Your task to perform on an android device: Go to battery settings Image 0: 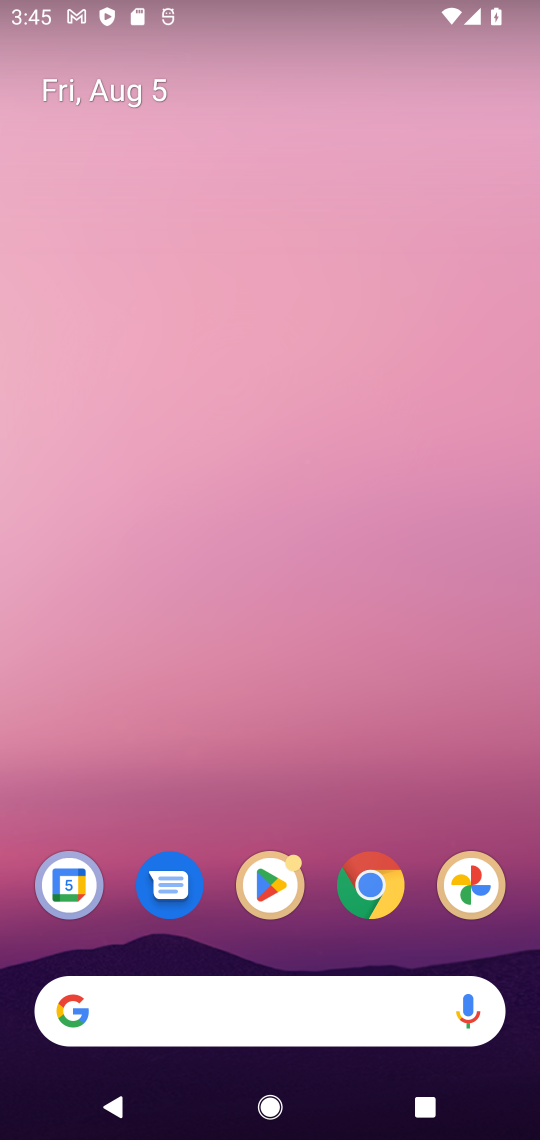
Step 0: drag from (329, 869) to (200, 106)
Your task to perform on an android device: Go to battery settings Image 1: 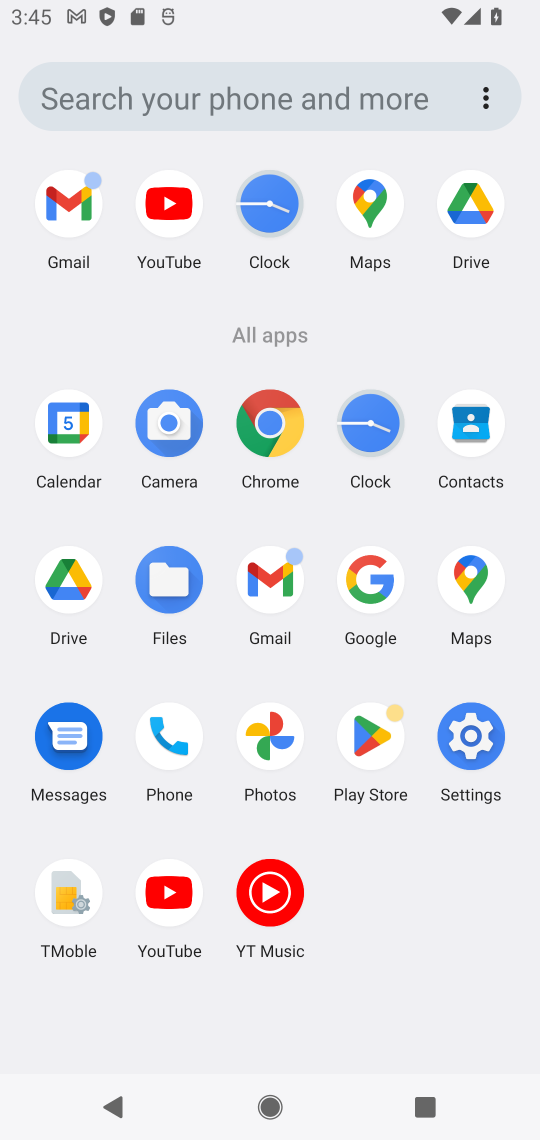
Step 1: click (466, 738)
Your task to perform on an android device: Go to battery settings Image 2: 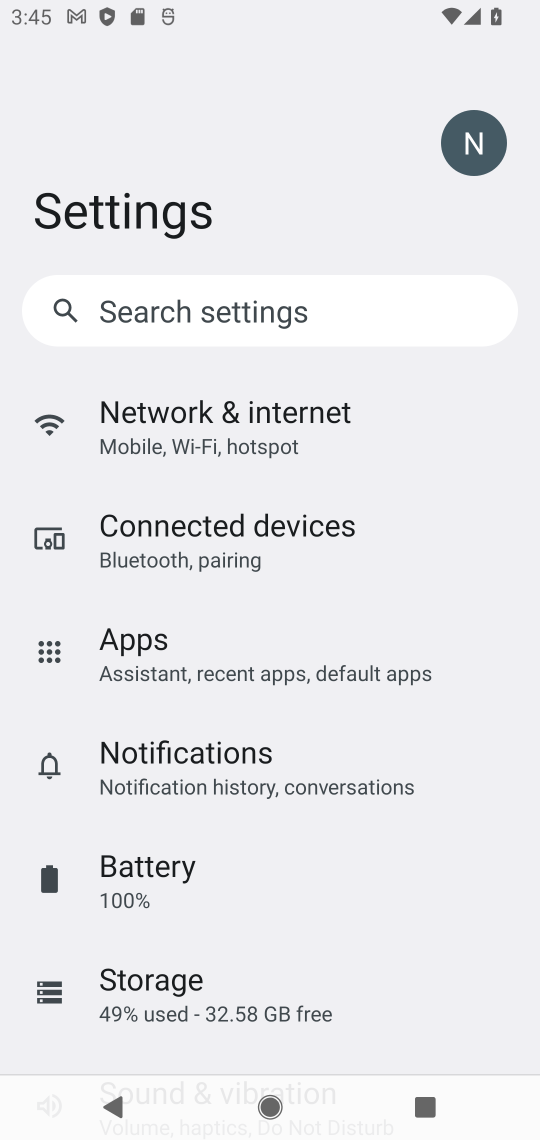
Step 2: click (120, 866)
Your task to perform on an android device: Go to battery settings Image 3: 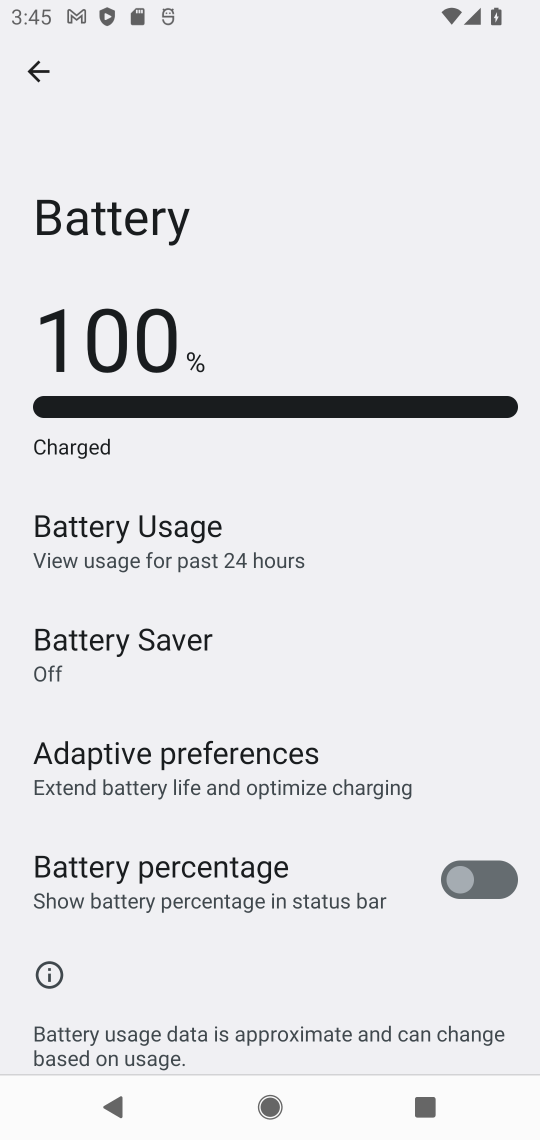
Step 3: task complete